Your task to perform on an android device: Go to Wikipedia Image 0: 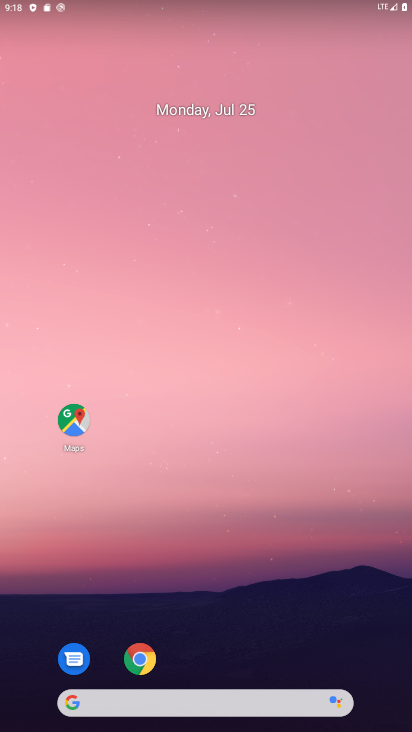
Step 0: click (138, 662)
Your task to perform on an android device: Go to Wikipedia Image 1: 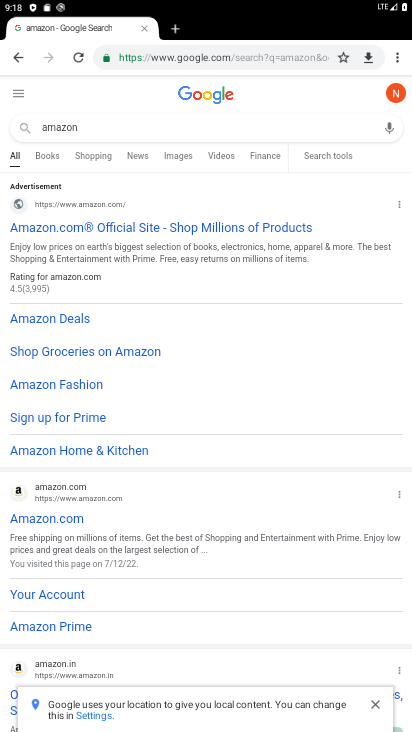
Step 1: click (178, 32)
Your task to perform on an android device: Go to Wikipedia Image 2: 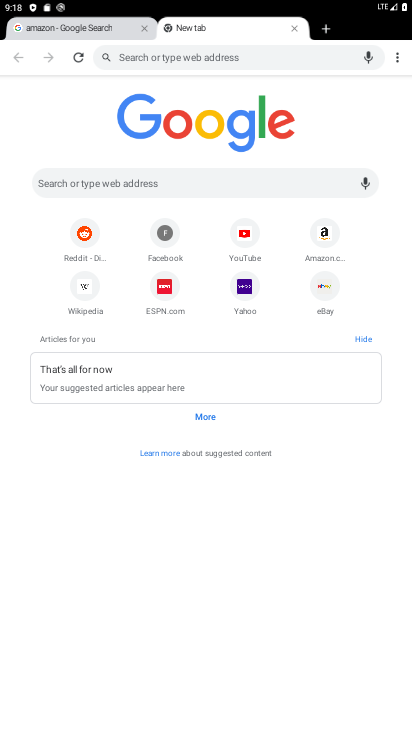
Step 2: click (85, 288)
Your task to perform on an android device: Go to Wikipedia Image 3: 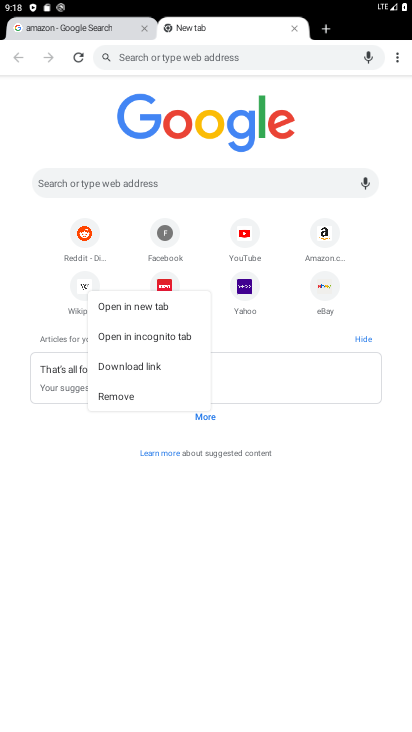
Step 3: click (65, 286)
Your task to perform on an android device: Go to Wikipedia Image 4: 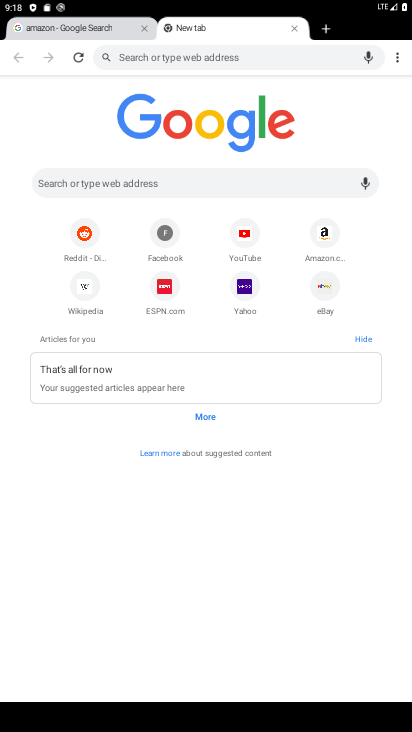
Step 4: click (73, 294)
Your task to perform on an android device: Go to Wikipedia Image 5: 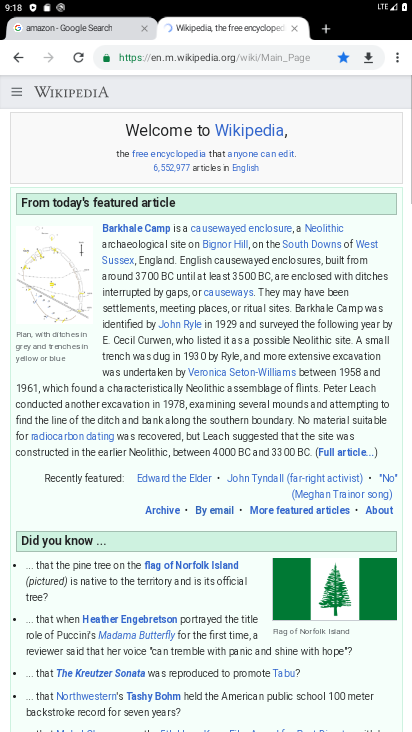
Step 5: click (144, 29)
Your task to perform on an android device: Go to Wikipedia Image 6: 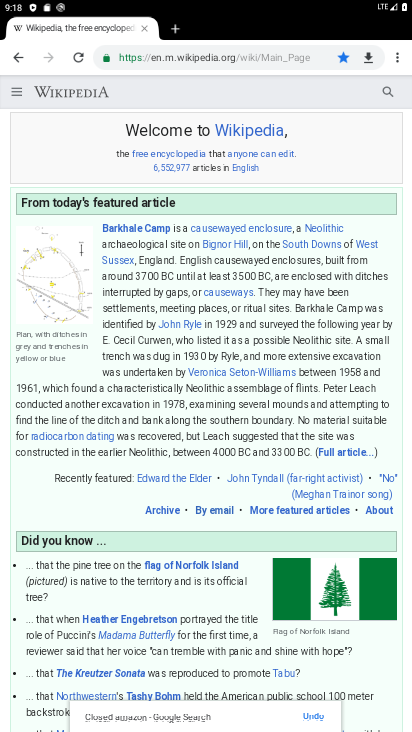
Step 6: task complete